Your task to perform on an android device: create a new album in the google photos Image 0: 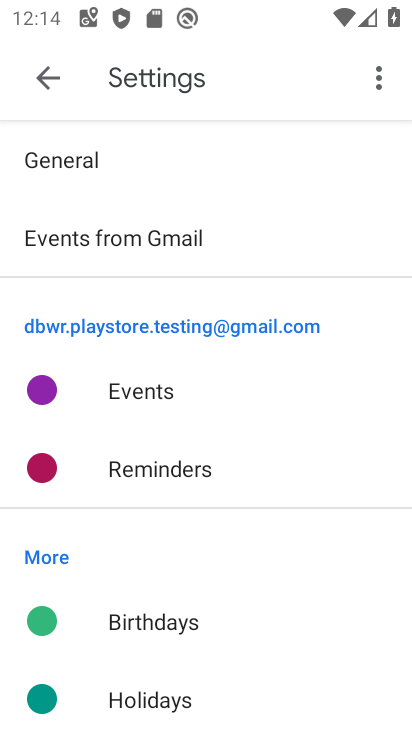
Step 0: click (46, 77)
Your task to perform on an android device: create a new album in the google photos Image 1: 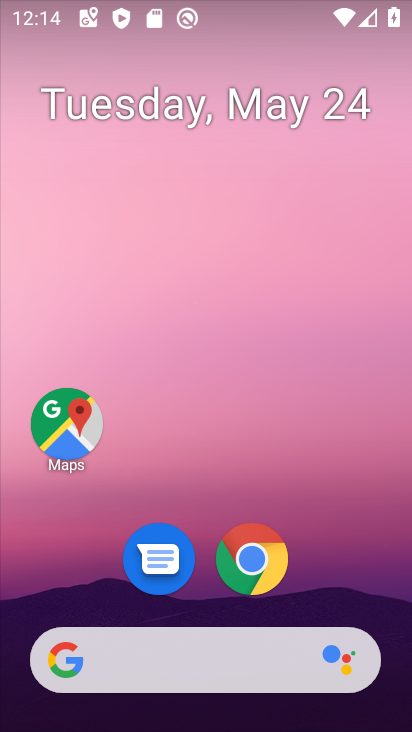
Step 1: drag from (230, 606) to (104, 71)
Your task to perform on an android device: create a new album in the google photos Image 2: 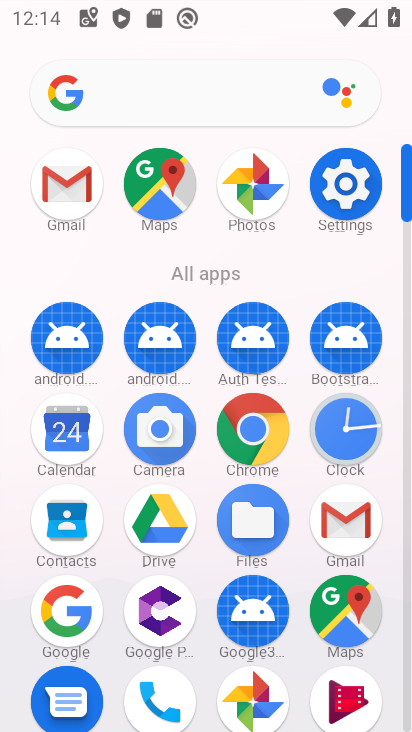
Step 2: drag from (271, 652) to (185, 243)
Your task to perform on an android device: create a new album in the google photos Image 3: 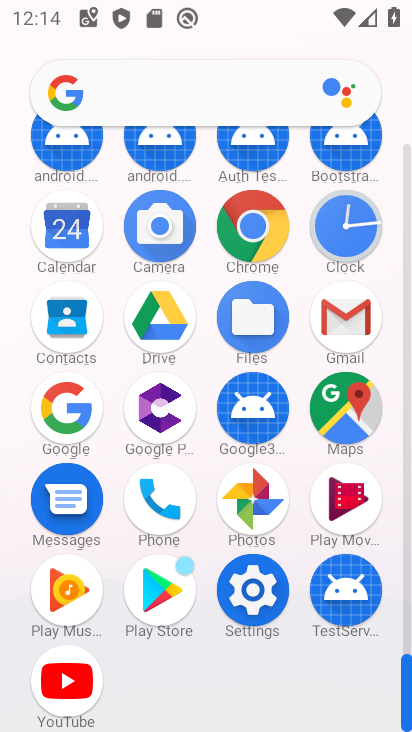
Step 3: click (260, 501)
Your task to perform on an android device: create a new album in the google photos Image 4: 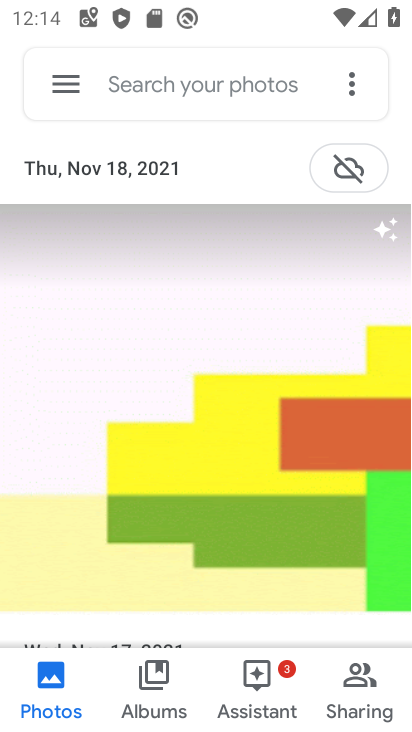
Step 4: click (351, 77)
Your task to perform on an android device: create a new album in the google photos Image 5: 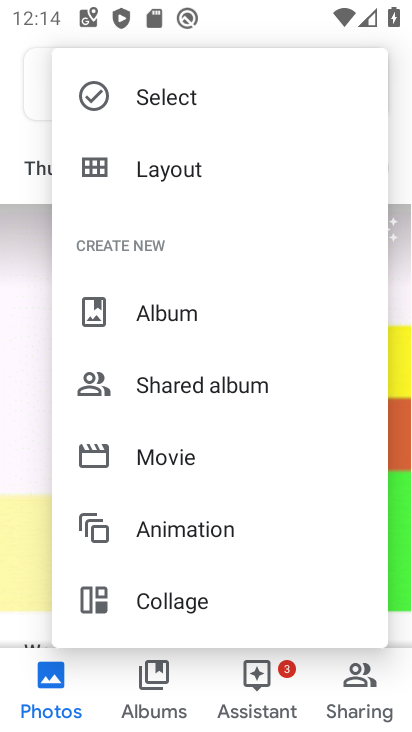
Step 5: click (158, 304)
Your task to perform on an android device: create a new album in the google photos Image 6: 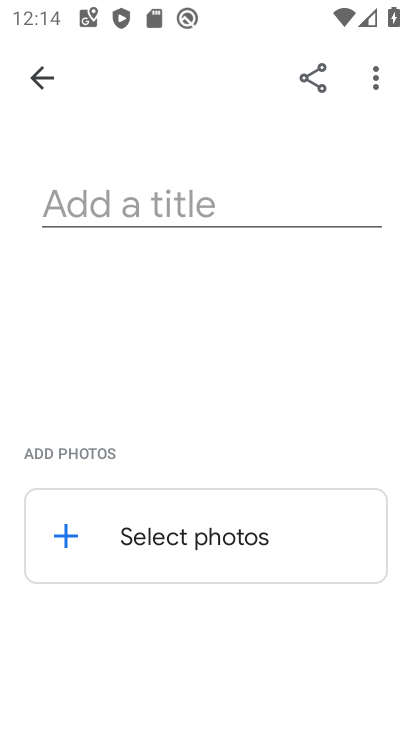
Step 6: click (73, 199)
Your task to perform on an android device: create a new album in the google photos Image 7: 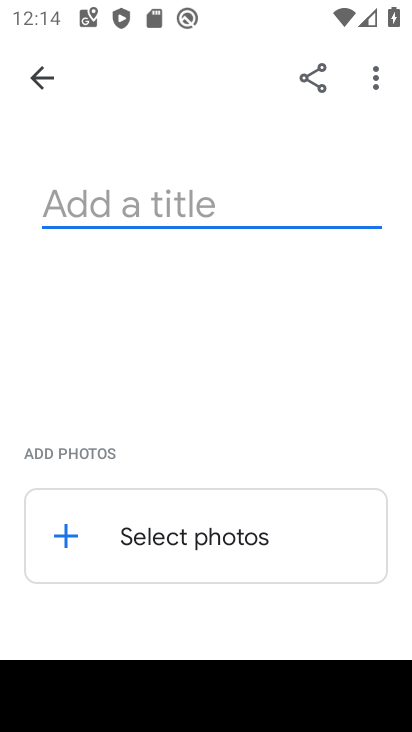
Step 7: type "Ram kishore"
Your task to perform on an android device: create a new album in the google photos Image 8: 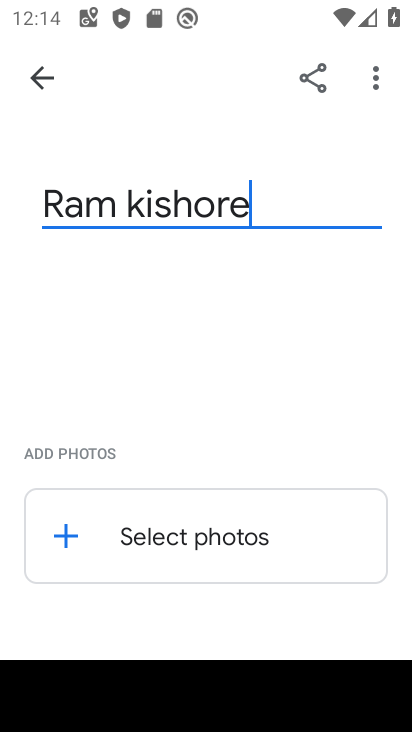
Step 8: click (129, 524)
Your task to perform on an android device: create a new album in the google photos Image 9: 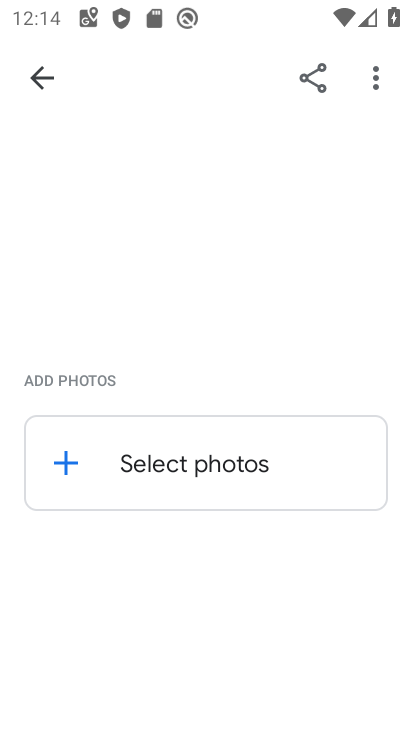
Step 9: click (139, 463)
Your task to perform on an android device: create a new album in the google photos Image 10: 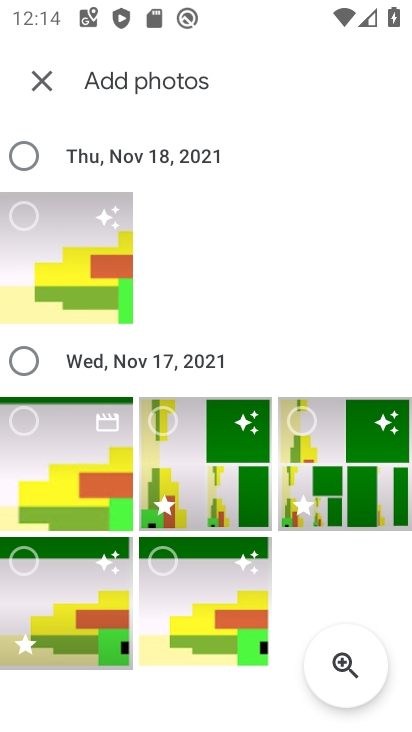
Step 10: click (25, 171)
Your task to perform on an android device: create a new album in the google photos Image 11: 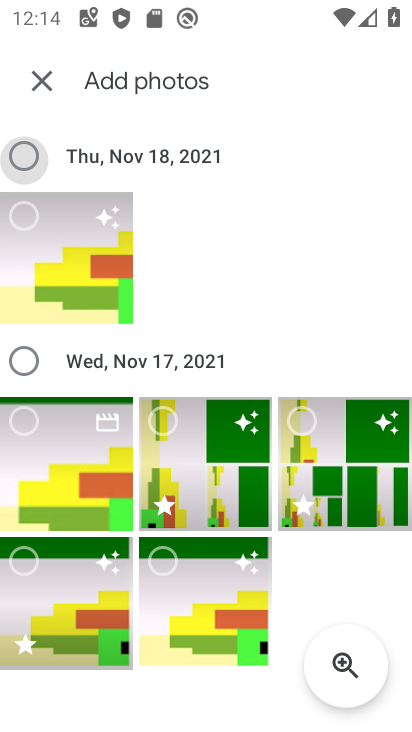
Step 11: click (24, 167)
Your task to perform on an android device: create a new album in the google photos Image 12: 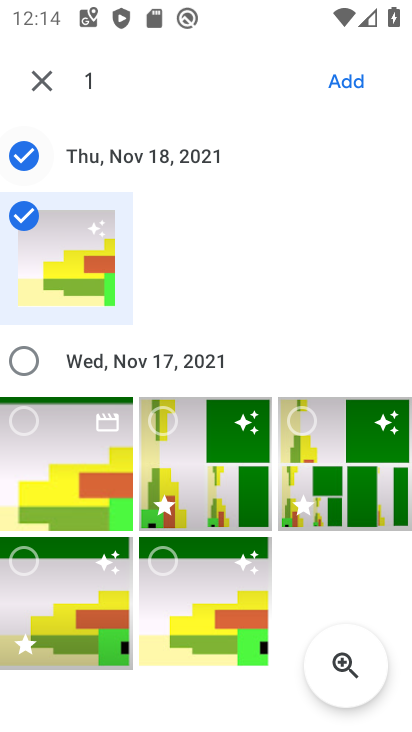
Step 12: click (24, 167)
Your task to perform on an android device: create a new album in the google photos Image 13: 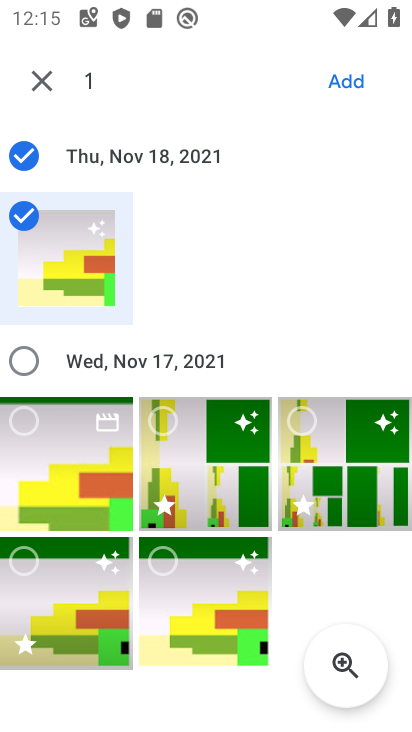
Step 13: click (355, 79)
Your task to perform on an android device: create a new album in the google photos Image 14: 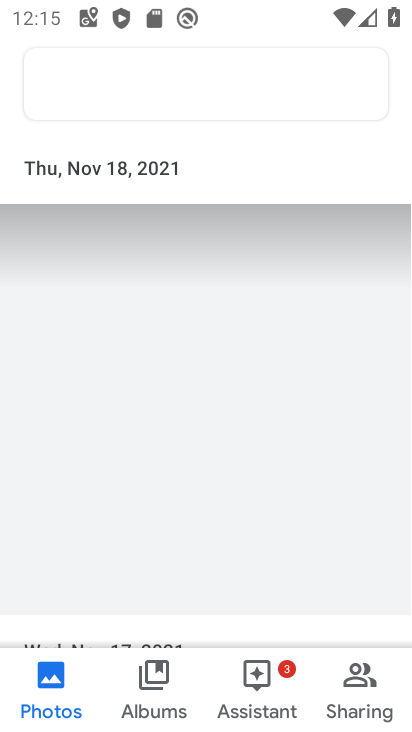
Step 14: task complete